Your task to perform on an android device: turn off translation in the chrome app Image 0: 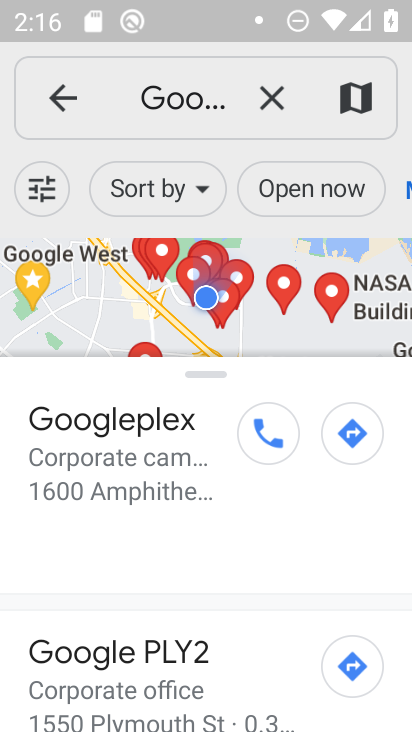
Step 0: press home button
Your task to perform on an android device: turn off translation in the chrome app Image 1: 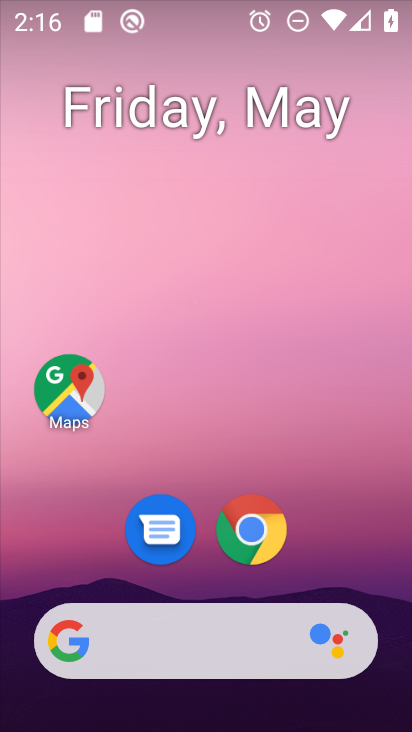
Step 1: click (252, 532)
Your task to perform on an android device: turn off translation in the chrome app Image 2: 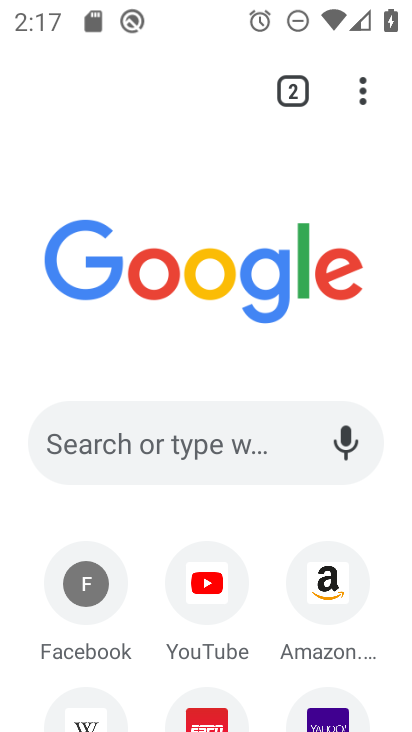
Step 2: click (357, 89)
Your task to perform on an android device: turn off translation in the chrome app Image 3: 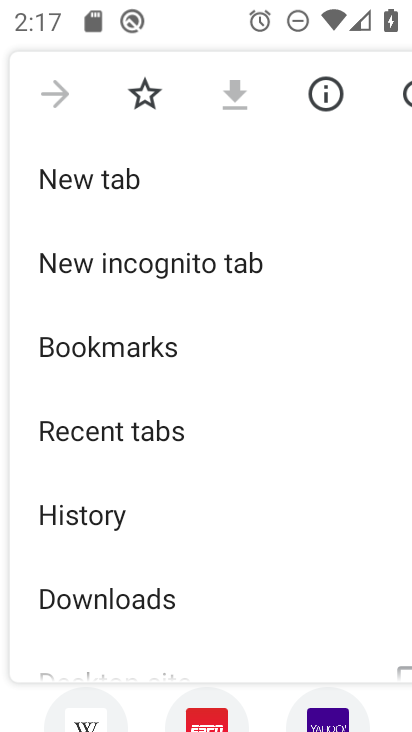
Step 3: drag from (275, 603) to (315, 300)
Your task to perform on an android device: turn off translation in the chrome app Image 4: 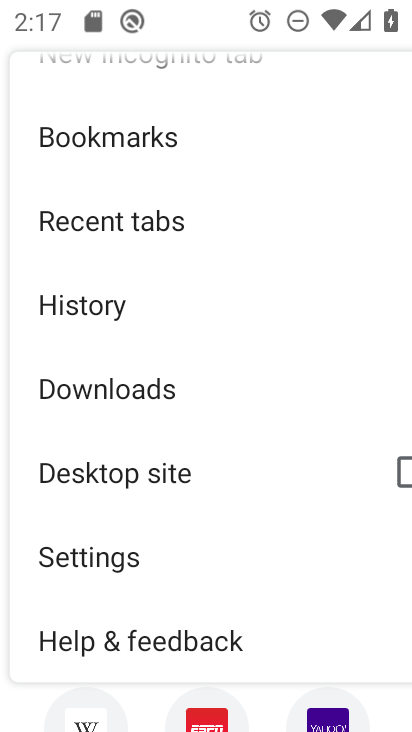
Step 4: click (107, 555)
Your task to perform on an android device: turn off translation in the chrome app Image 5: 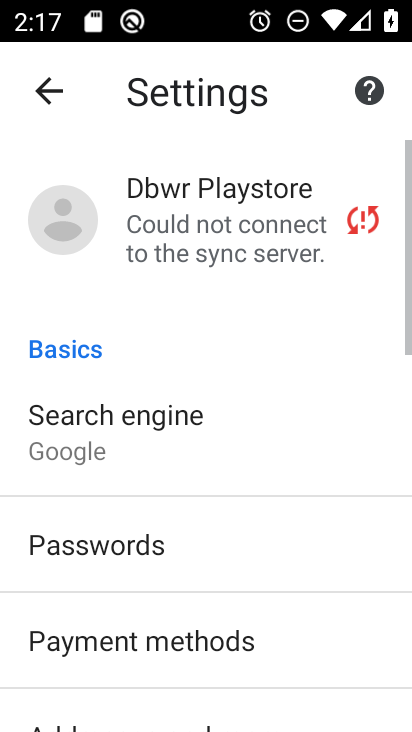
Step 5: drag from (271, 689) to (279, 298)
Your task to perform on an android device: turn off translation in the chrome app Image 6: 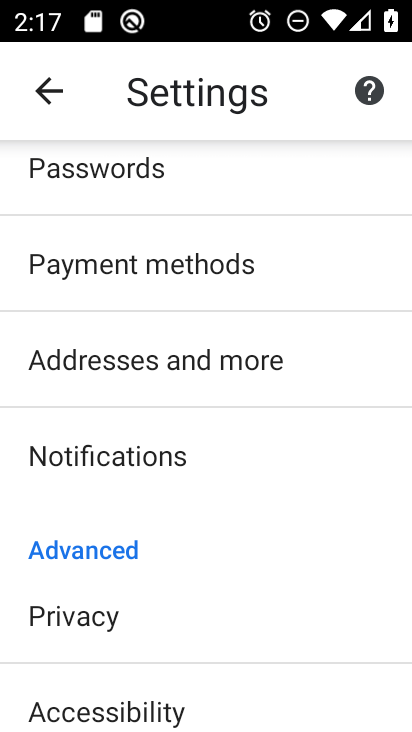
Step 6: drag from (285, 622) to (275, 382)
Your task to perform on an android device: turn off translation in the chrome app Image 7: 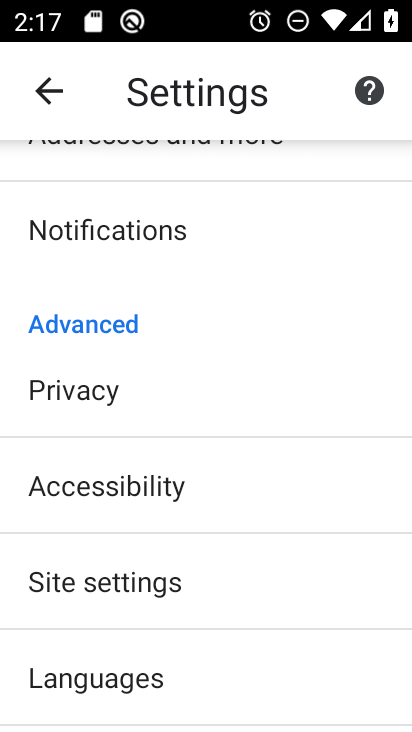
Step 7: drag from (262, 690) to (236, 296)
Your task to perform on an android device: turn off translation in the chrome app Image 8: 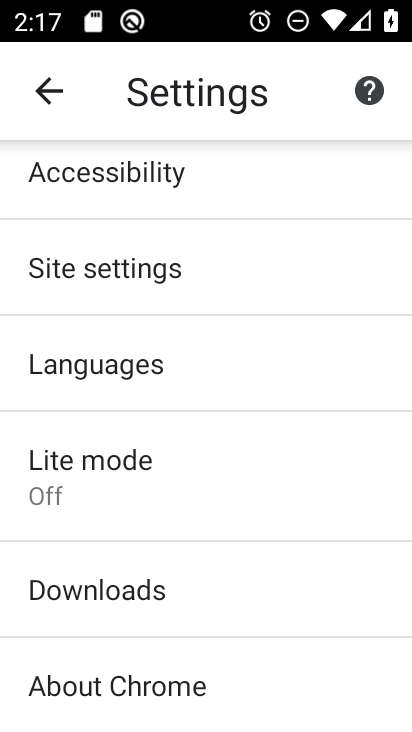
Step 8: click (96, 371)
Your task to perform on an android device: turn off translation in the chrome app Image 9: 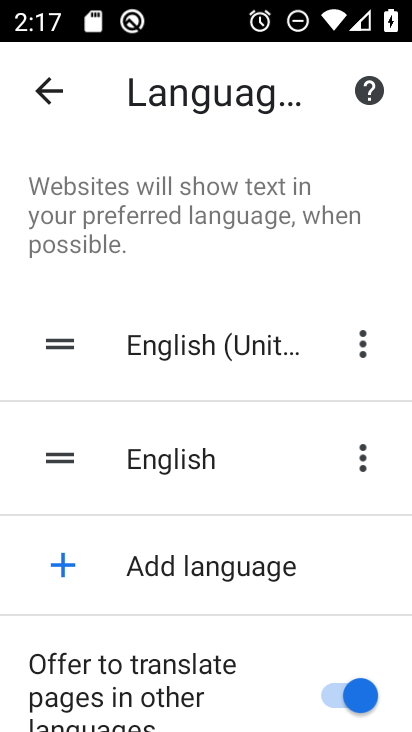
Step 9: drag from (253, 702) to (265, 296)
Your task to perform on an android device: turn off translation in the chrome app Image 10: 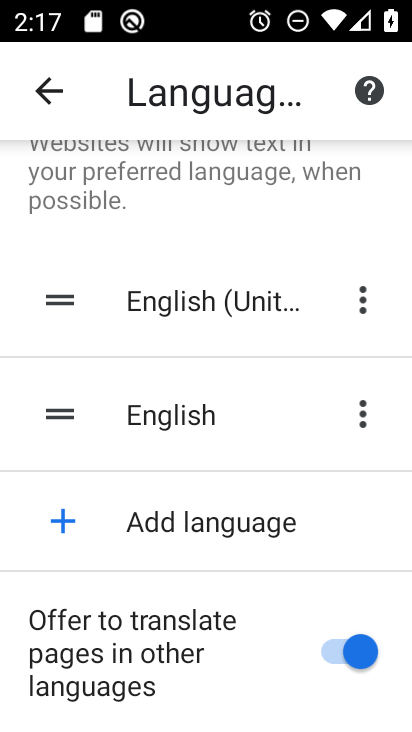
Step 10: click (315, 650)
Your task to perform on an android device: turn off translation in the chrome app Image 11: 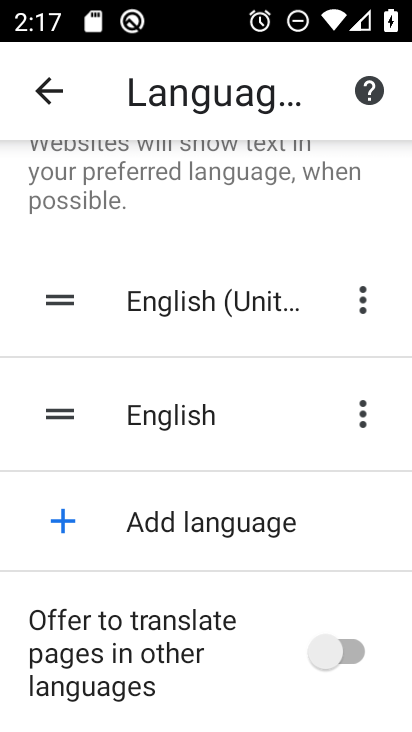
Step 11: task complete